Your task to perform on an android device: Go to Amazon Image 0: 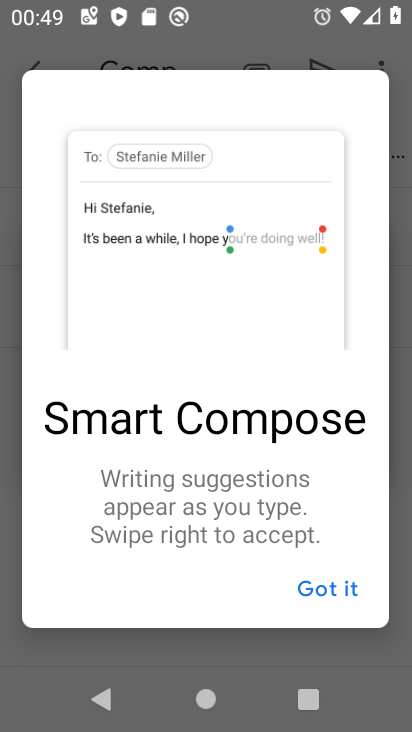
Step 0: press home button
Your task to perform on an android device: Go to Amazon Image 1: 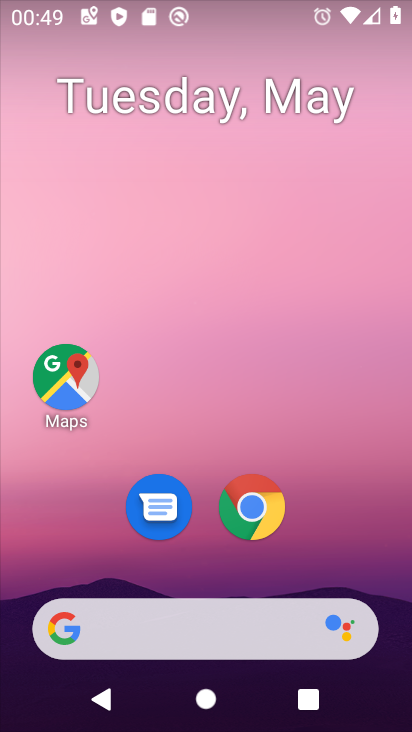
Step 1: click (241, 517)
Your task to perform on an android device: Go to Amazon Image 2: 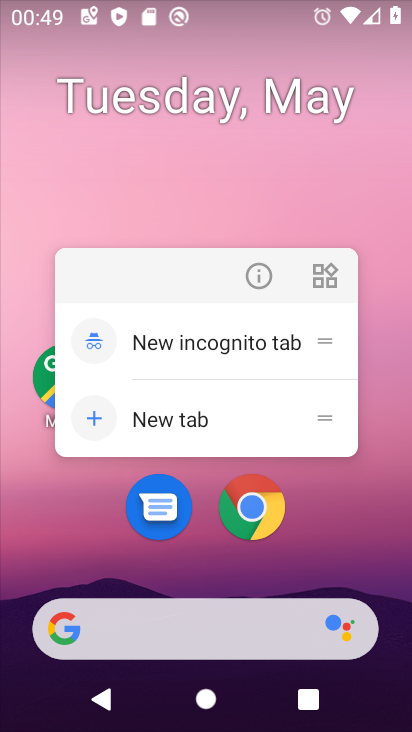
Step 2: click (248, 517)
Your task to perform on an android device: Go to Amazon Image 3: 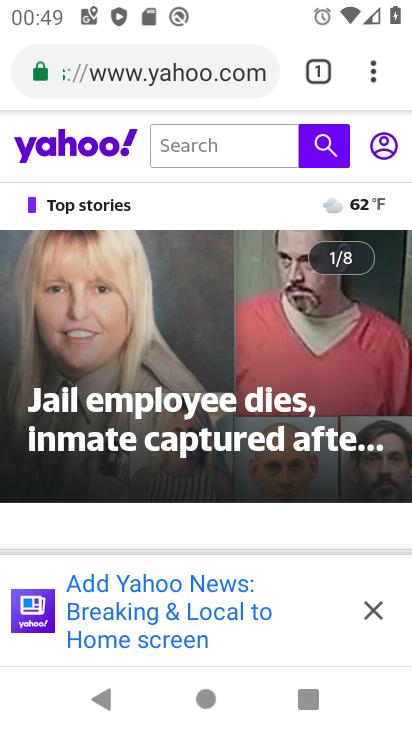
Step 3: click (316, 72)
Your task to perform on an android device: Go to Amazon Image 4: 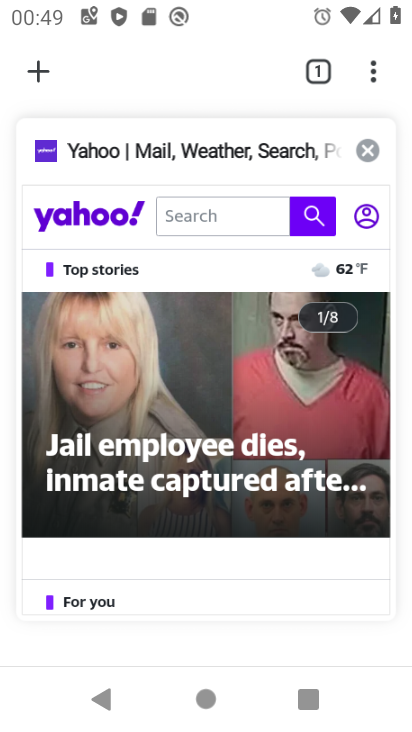
Step 4: click (32, 71)
Your task to perform on an android device: Go to Amazon Image 5: 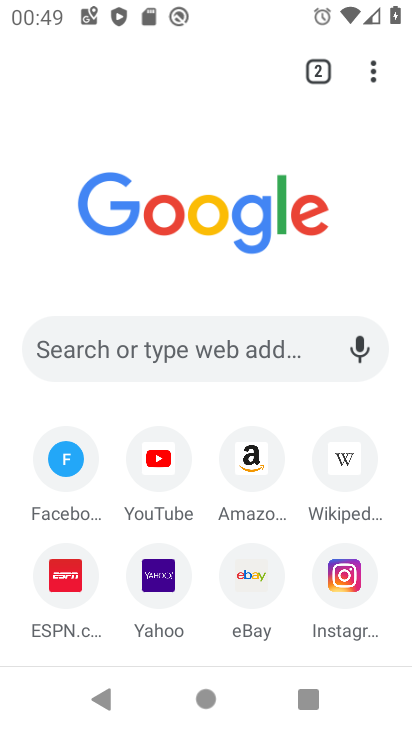
Step 5: click (251, 465)
Your task to perform on an android device: Go to Amazon Image 6: 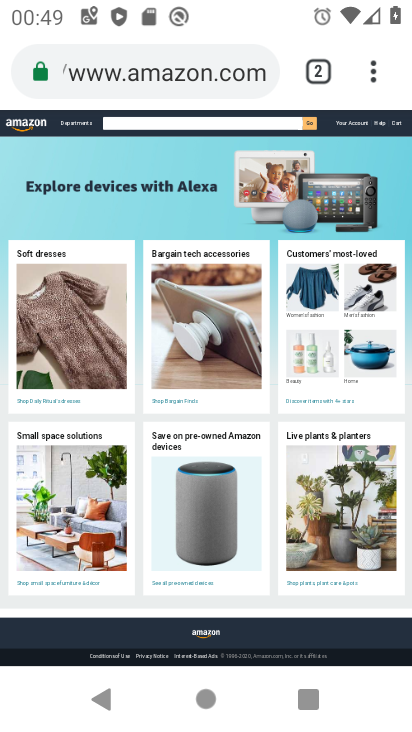
Step 6: task complete